Your task to perform on an android device: Open the map Image 0: 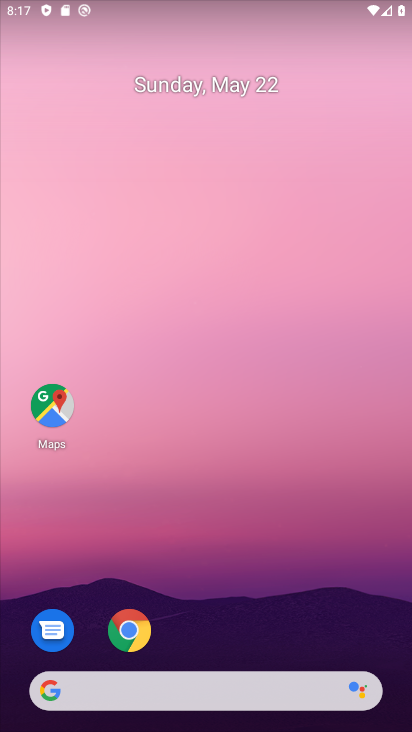
Step 0: press home button
Your task to perform on an android device: Open the map Image 1: 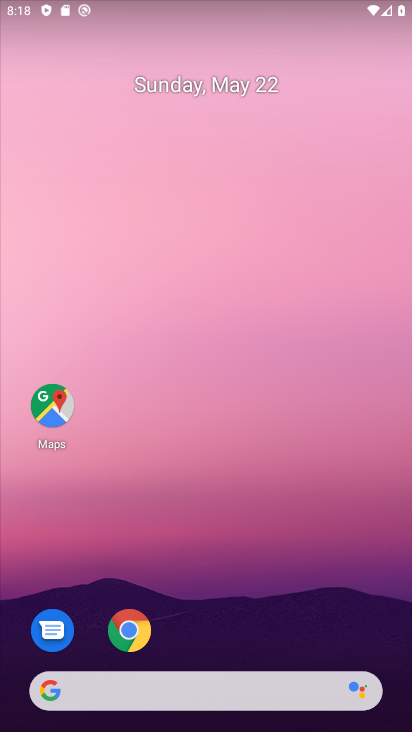
Step 1: click (47, 416)
Your task to perform on an android device: Open the map Image 2: 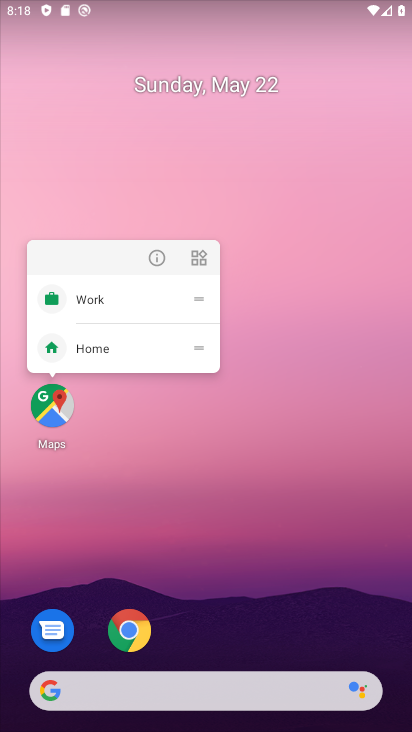
Step 2: click (62, 403)
Your task to perform on an android device: Open the map Image 3: 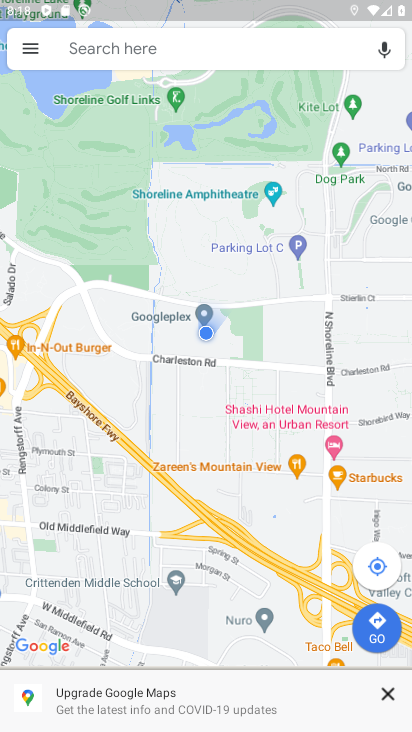
Step 3: task complete